Your task to perform on an android device: toggle data saver in the chrome app Image 0: 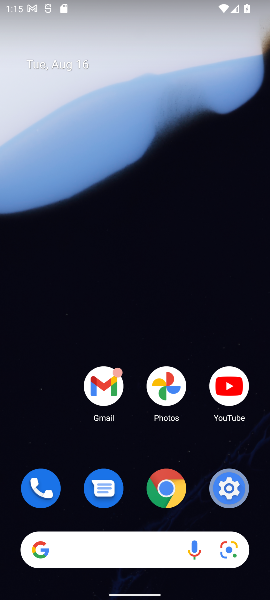
Step 0: click (175, 490)
Your task to perform on an android device: toggle data saver in the chrome app Image 1: 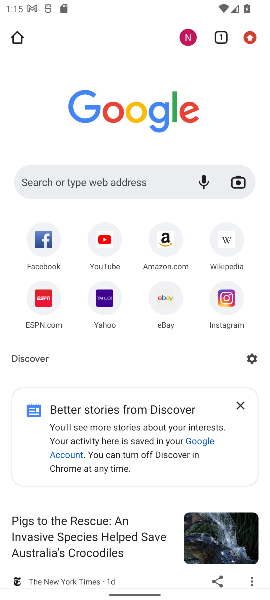
Step 1: task complete